Your task to perform on an android device: check google app version Image 0: 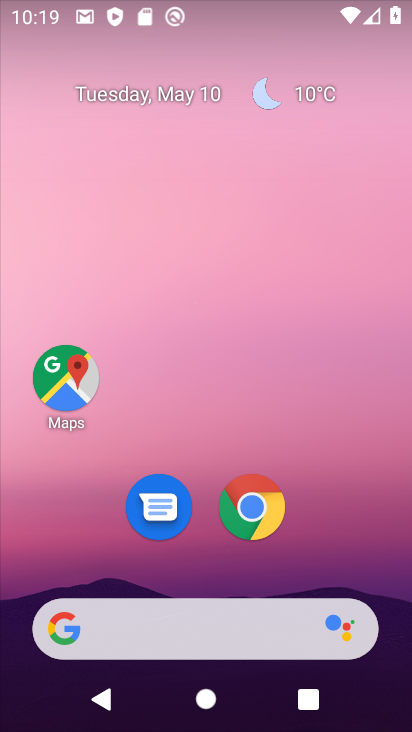
Step 0: drag from (231, 724) to (266, 89)
Your task to perform on an android device: check google app version Image 1: 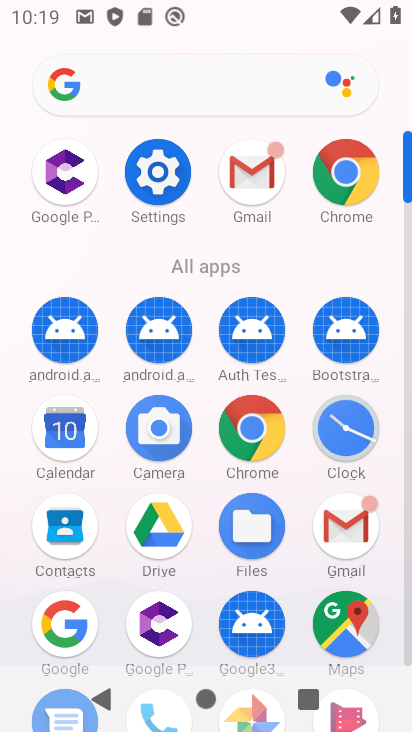
Step 1: click (61, 629)
Your task to perform on an android device: check google app version Image 2: 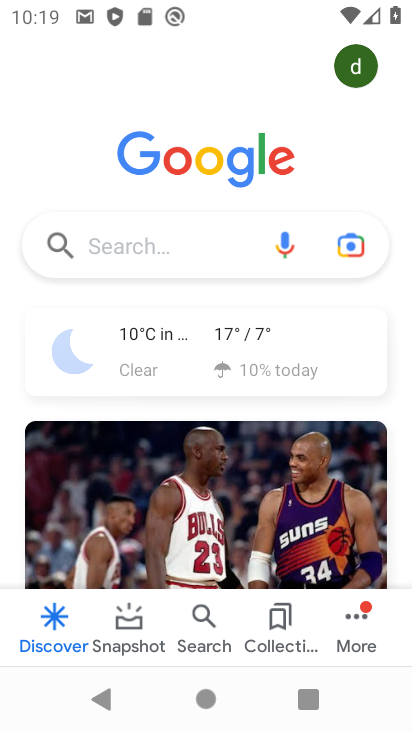
Step 2: click (352, 613)
Your task to perform on an android device: check google app version Image 3: 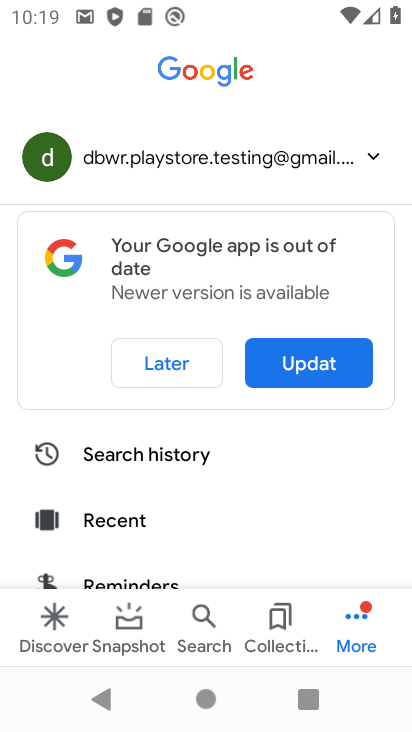
Step 3: drag from (148, 562) to (159, 163)
Your task to perform on an android device: check google app version Image 4: 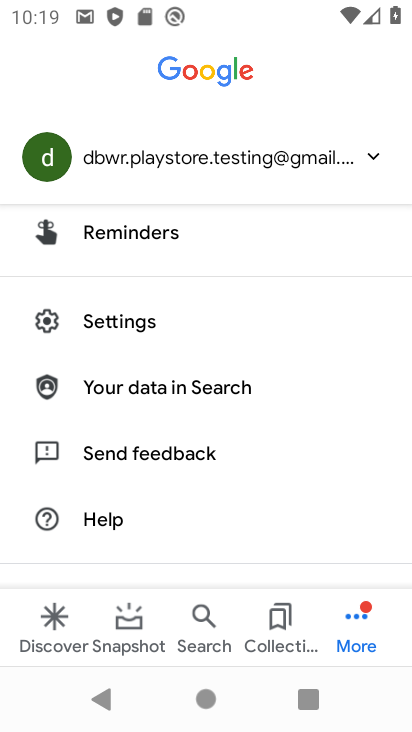
Step 4: click (118, 321)
Your task to perform on an android device: check google app version Image 5: 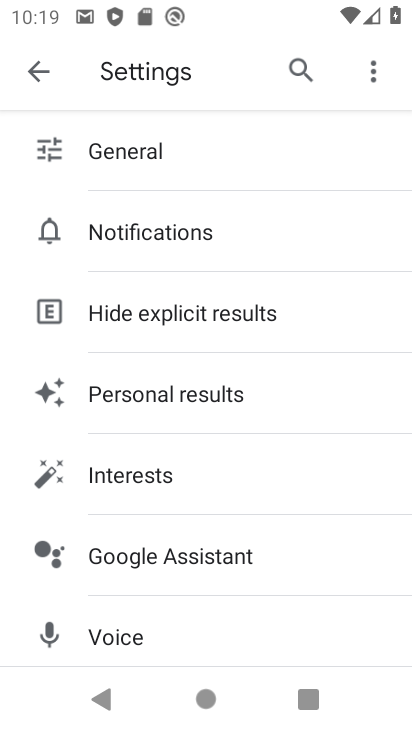
Step 5: drag from (175, 648) to (186, 258)
Your task to perform on an android device: check google app version Image 6: 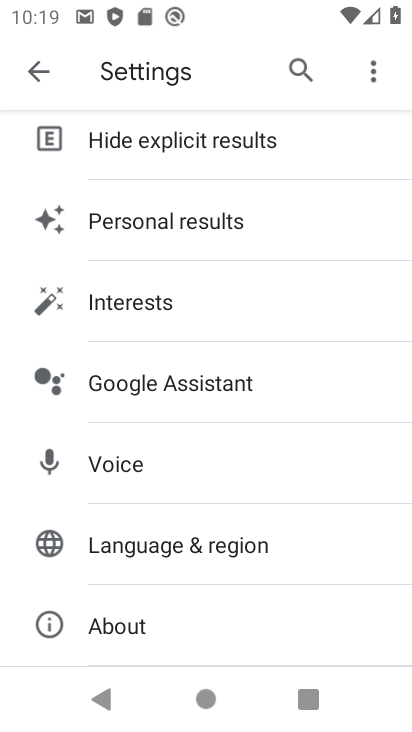
Step 6: click (129, 624)
Your task to perform on an android device: check google app version Image 7: 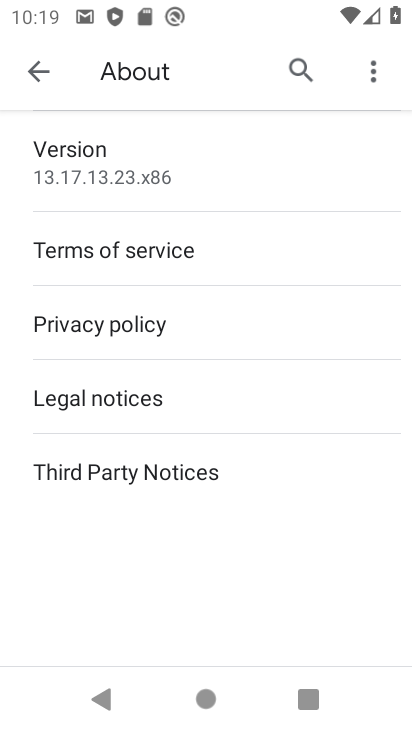
Step 7: task complete